Your task to perform on an android device: What's on my calendar today? Image 0: 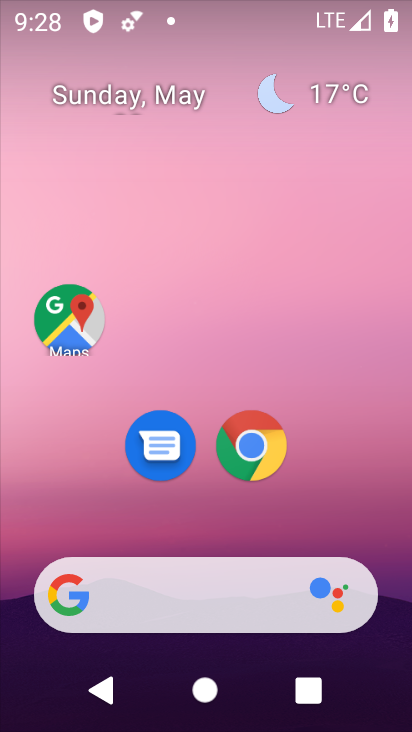
Step 0: drag from (218, 523) to (214, 76)
Your task to perform on an android device: What's on my calendar today? Image 1: 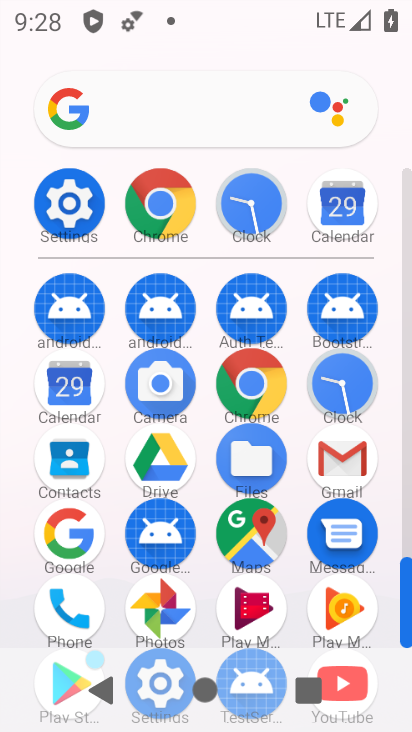
Step 1: drag from (215, 544) to (216, 239)
Your task to perform on an android device: What's on my calendar today? Image 2: 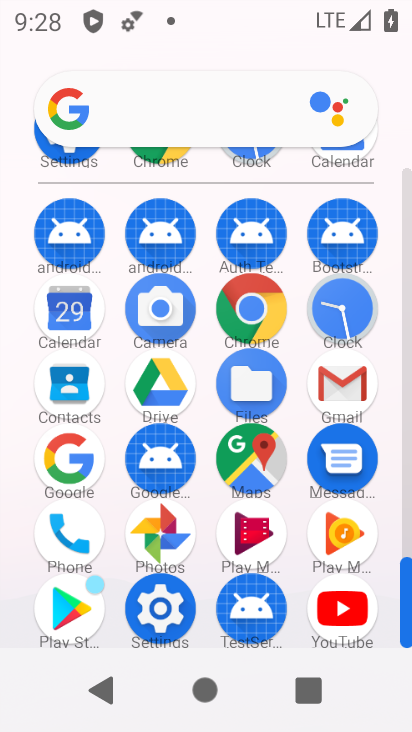
Step 2: click (73, 303)
Your task to perform on an android device: What's on my calendar today? Image 3: 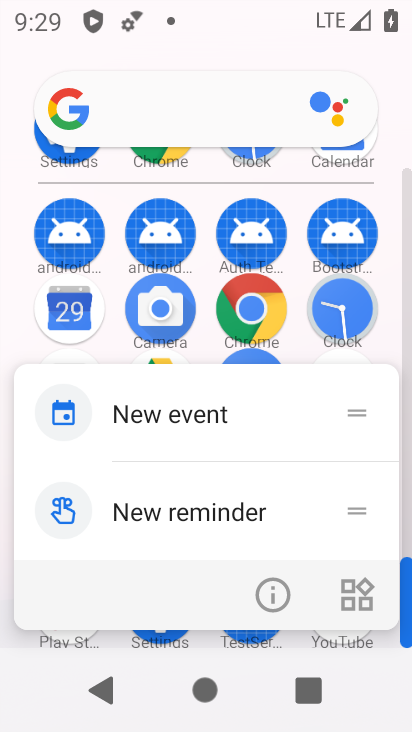
Step 3: click (267, 594)
Your task to perform on an android device: What's on my calendar today? Image 4: 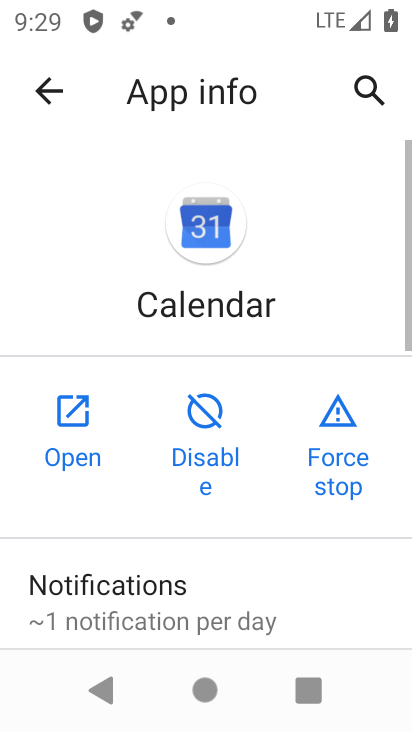
Step 4: click (75, 419)
Your task to perform on an android device: What's on my calendar today? Image 5: 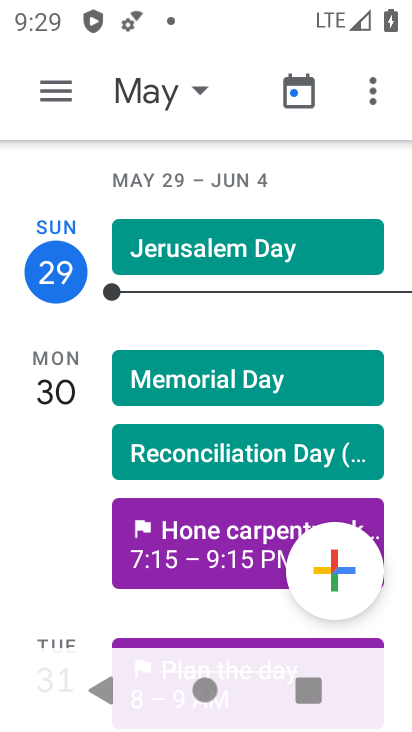
Step 5: drag from (281, 610) to (273, 158)
Your task to perform on an android device: What's on my calendar today? Image 6: 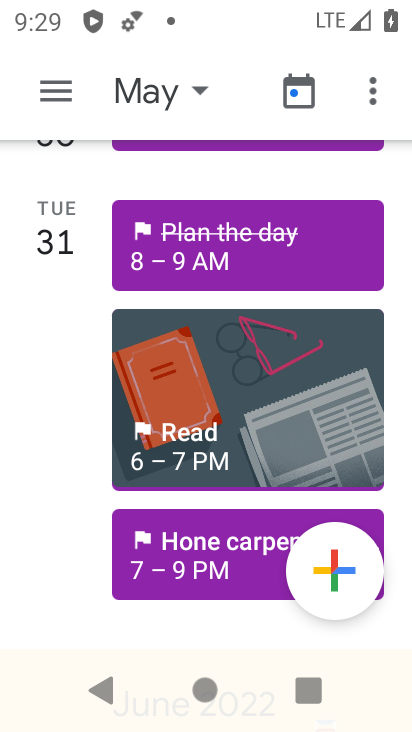
Step 6: drag from (240, 587) to (295, 277)
Your task to perform on an android device: What's on my calendar today? Image 7: 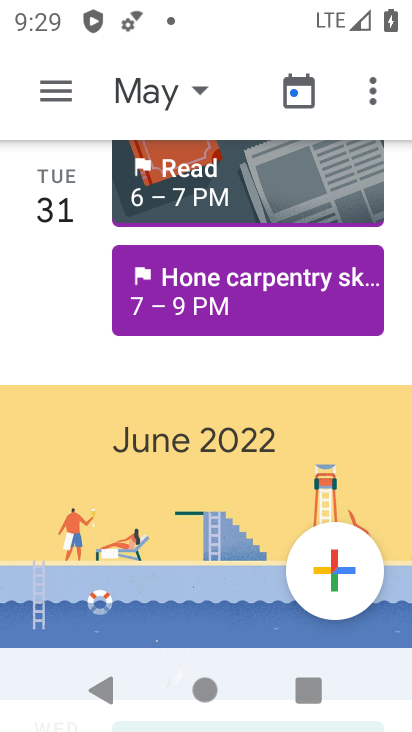
Step 7: drag from (306, 179) to (315, 727)
Your task to perform on an android device: What's on my calendar today? Image 8: 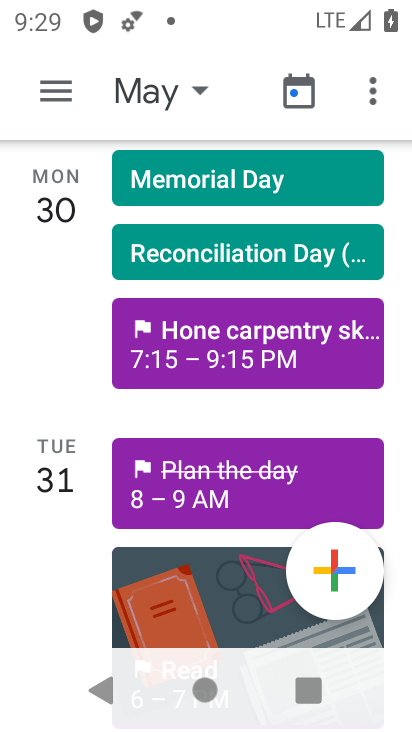
Step 8: click (184, 81)
Your task to perform on an android device: What's on my calendar today? Image 9: 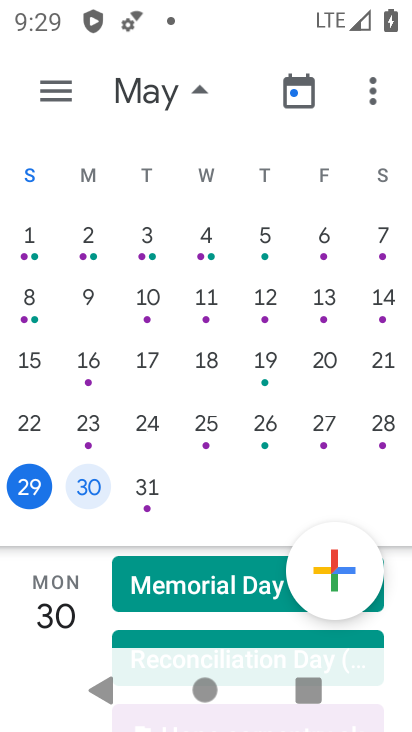
Step 9: click (40, 482)
Your task to perform on an android device: What's on my calendar today? Image 10: 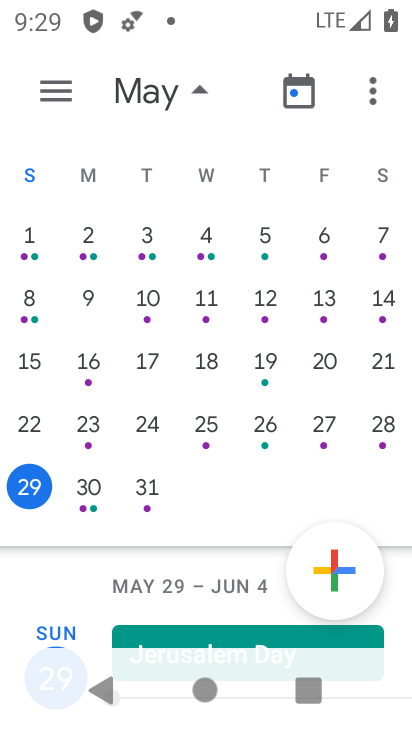
Step 10: task complete